Your task to perform on an android device: Open ESPN.com Image 0: 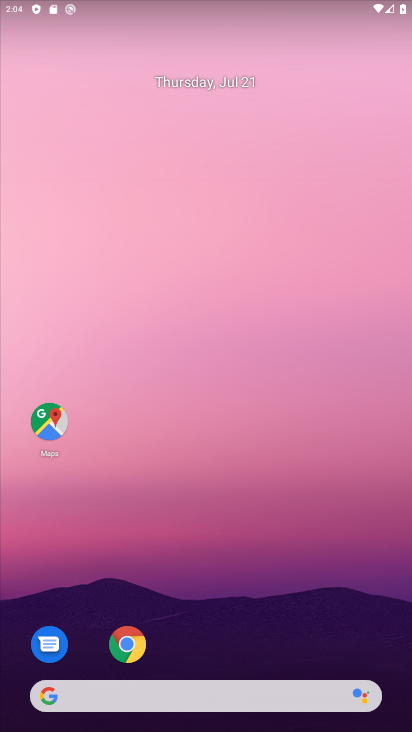
Step 0: click (270, 251)
Your task to perform on an android device: Open ESPN.com Image 1: 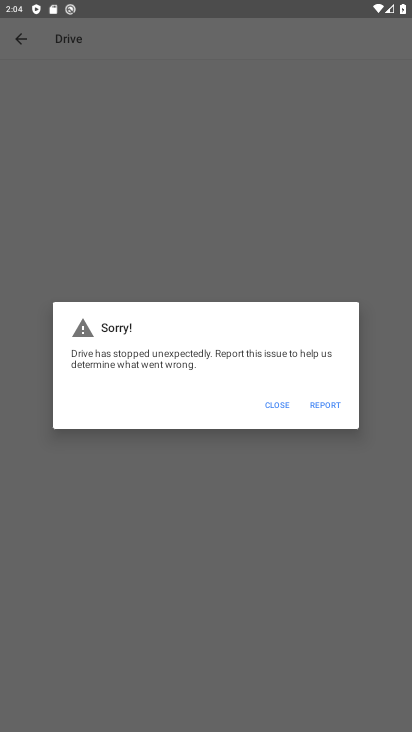
Step 1: press home button
Your task to perform on an android device: Open ESPN.com Image 2: 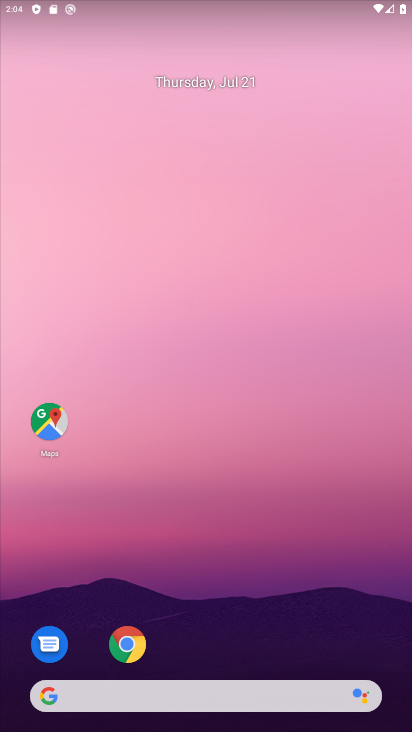
Step 2: click (128, 643)
Your task to perform on an android device: Open ESPN.com Image 3: 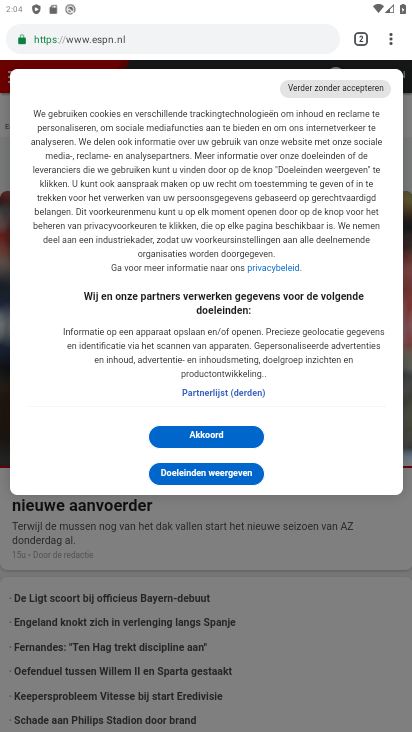
Step 3: click (358, 39)
Your task to perform on an android device: Open ESPN.com Image 4: 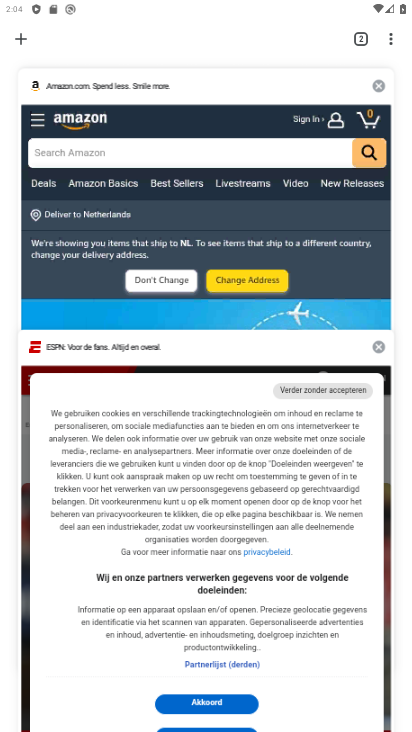
Step 4: click (20, 41)
Your task to perform on an android device: Open ESPN.com Image 5: 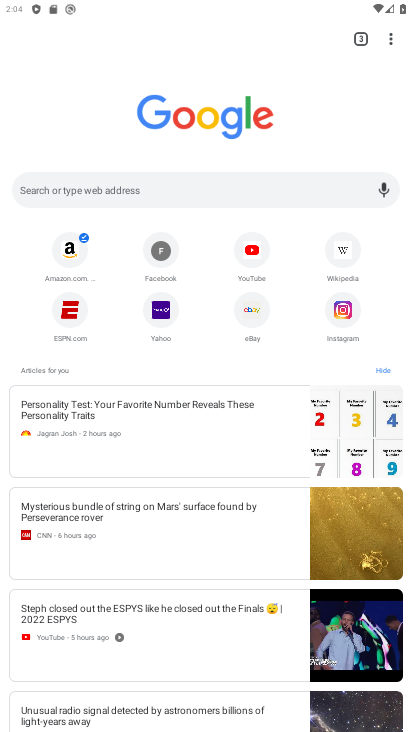
Step 5: click (71, 326)
Your task to perform on an android device: Open ESPN.com Image 6: 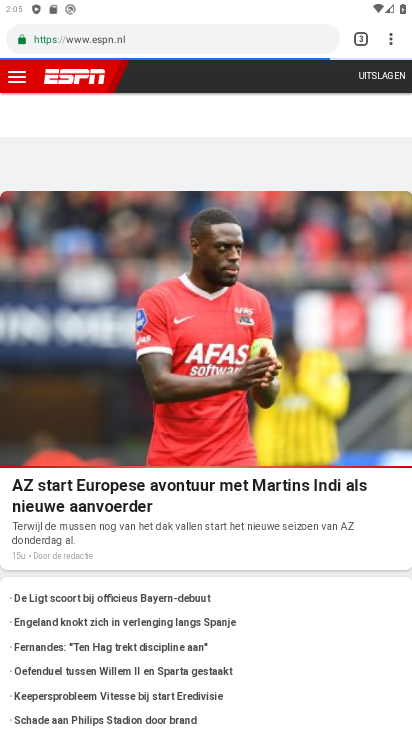
Step 6: task complete